Your task to perform on an android device: check battery use Image 0: 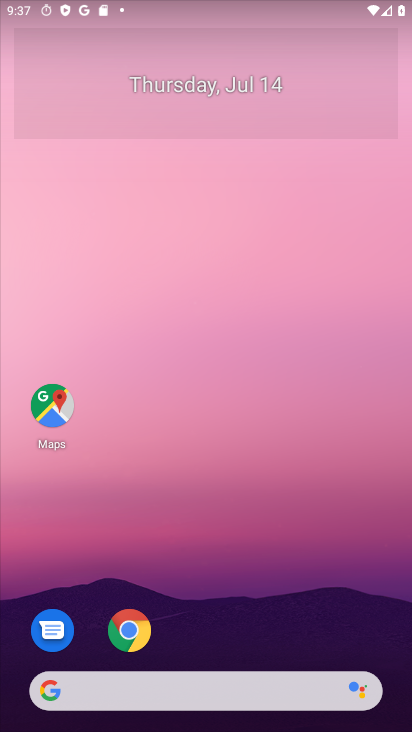
Step 0: drag from (14, 700) to (131, 183)
Your task to perform on an android device: check battery use Image 1: 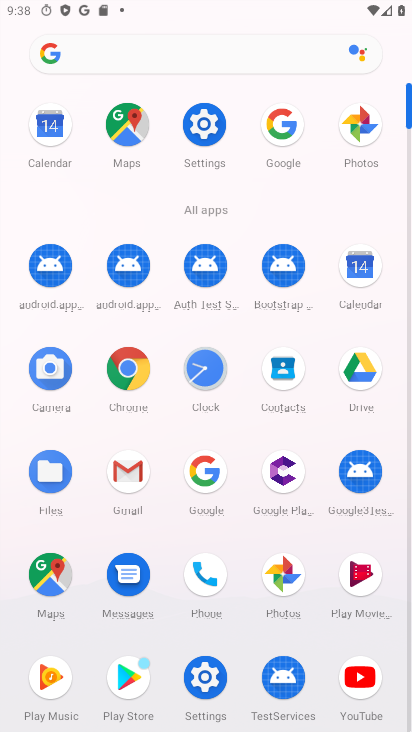
Step 1: click (201, 674)
Your task to perform on an android device: check battery use Image 2: 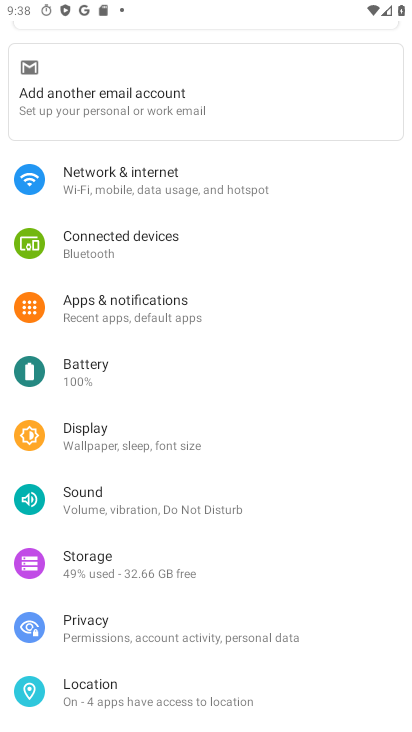
Step 2: click (121, 372)
Your task to perform on an android device: check battery use Image 3: 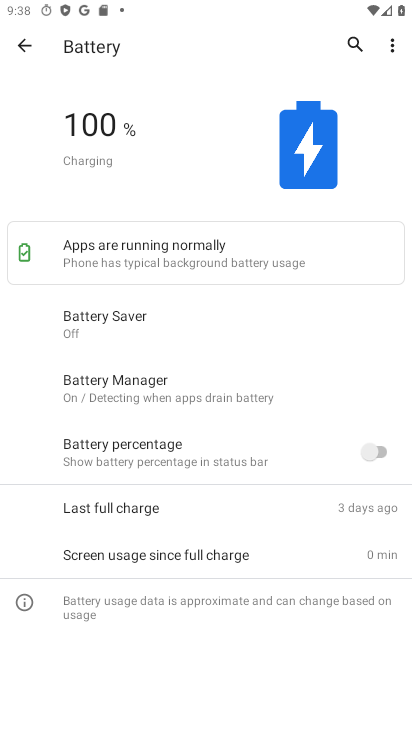
Step 3: task complete